Your task to perform on an android device: change the clock style Image 0: 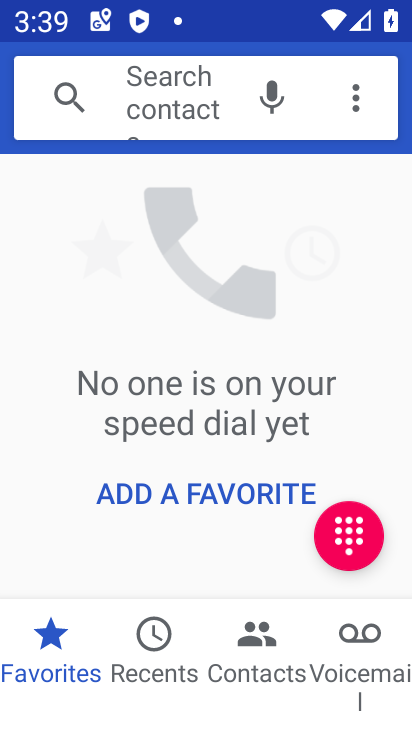
Step 0: press home button
Your task to perform on an android device: change the clock style Image 1: 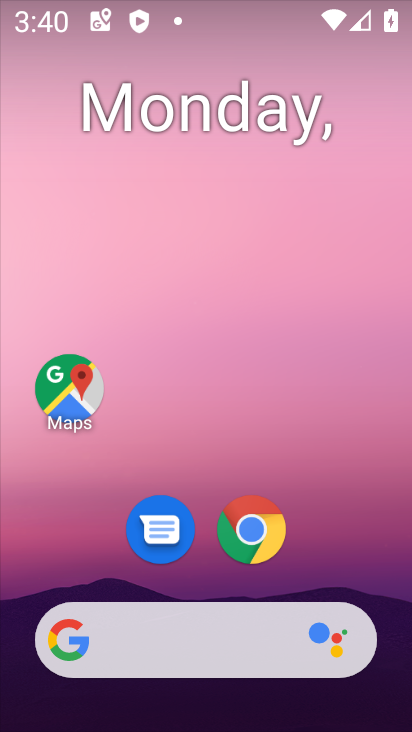
Step 1: drag from (214, 679) to (200, 141)
Your task to perform on an android device: change the clock style Image 2: 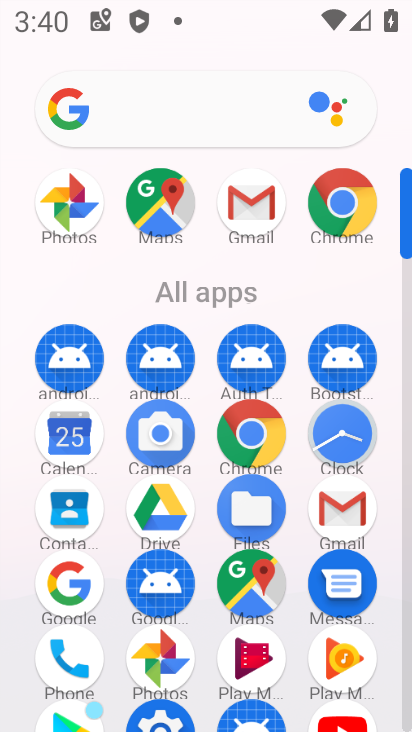
Step 2: click (344, 429)
Your task to perform on an android device: change the clock style Image 3: 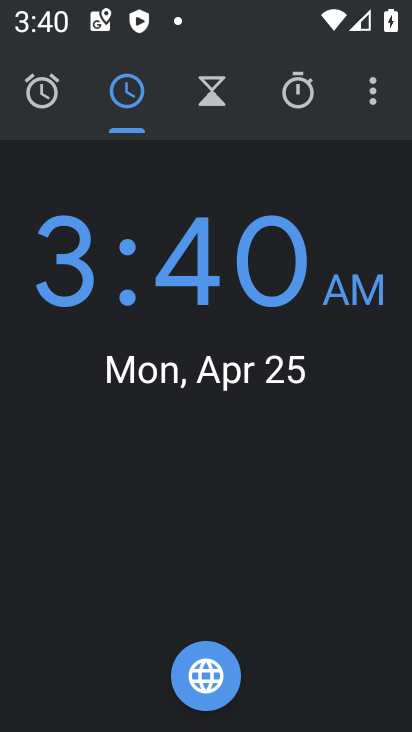
Step 3: drag from (373, 95) to (317, 148)
Your task to perform on an android device: change the clock style Image 4: 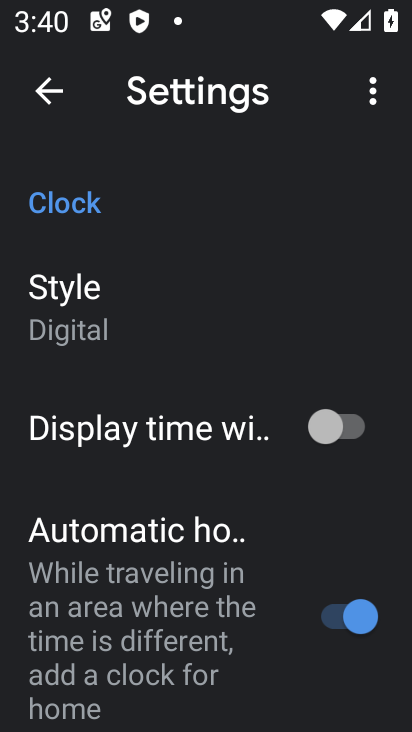
Step 4: click (67, 318)
Your task to perform on an android device: change the clock style Image 5: 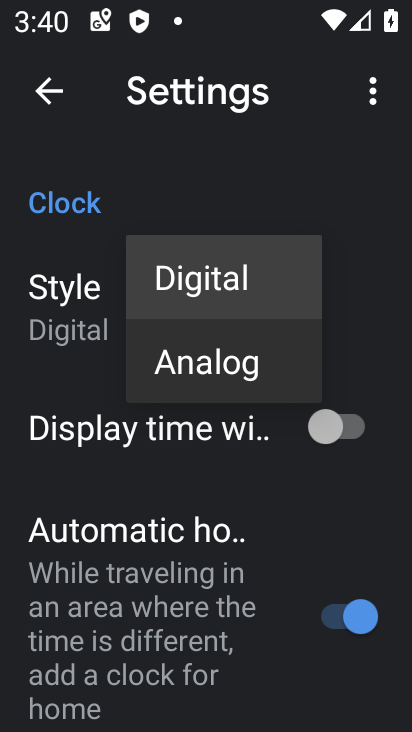
Step 5: click (190, 366)
Your task to perform on an android device: change the clock style Image 6: 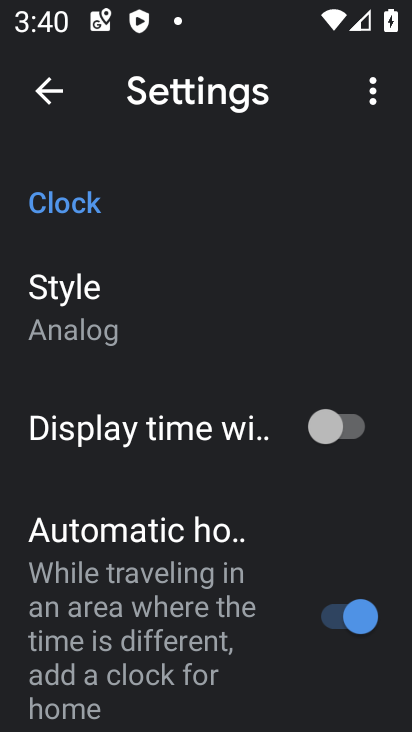
Step 6: task complete